Your task to perform on an android device: toggle airplane mode Image 0: 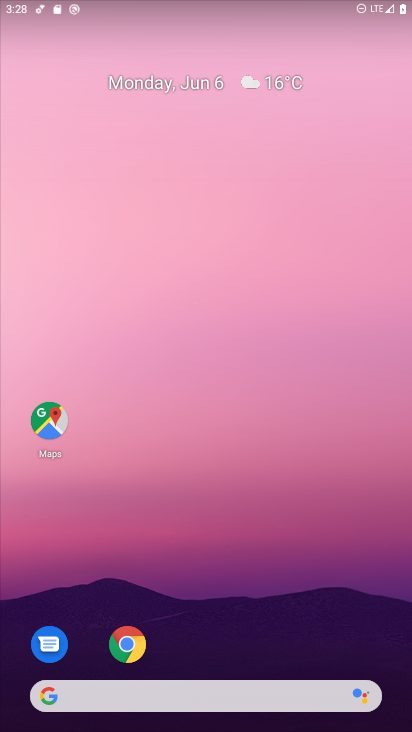
Step 0: drag from (275, 604) to (283, 36)
Your task to perform on an android device: toggle airplane mode Image 1: 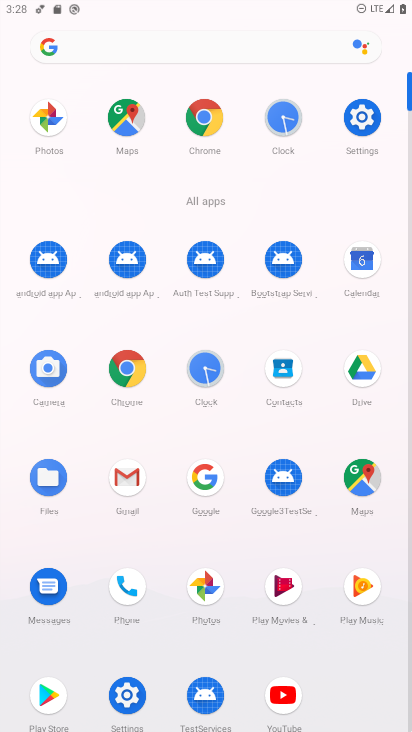
Step 1: click (358, 117)
Your task to perform on an android device: toggle airplane mode Image 2: 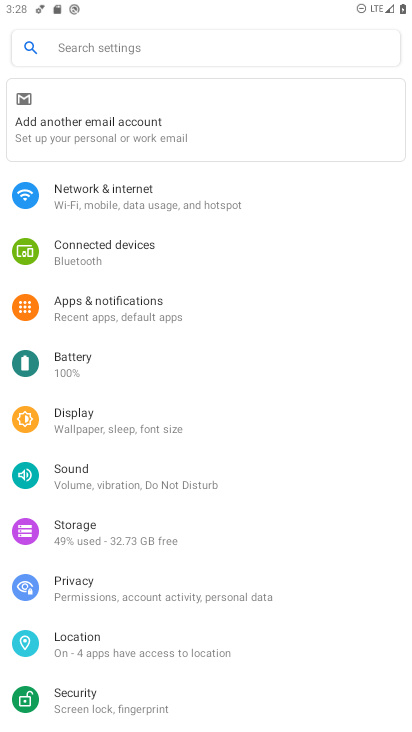
Step 2: click (118, 193)
Your task to perform on an android device: toggle airplane mode Image 3: 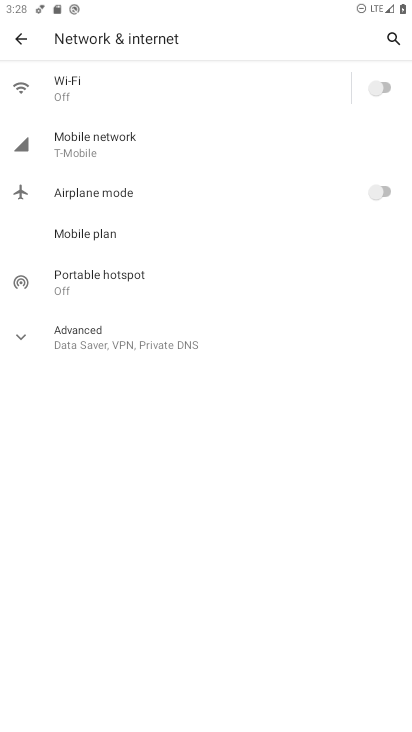
Step 3: click (384, 193)
Your task to perform on an android device: toggle airplane mode Image 4: 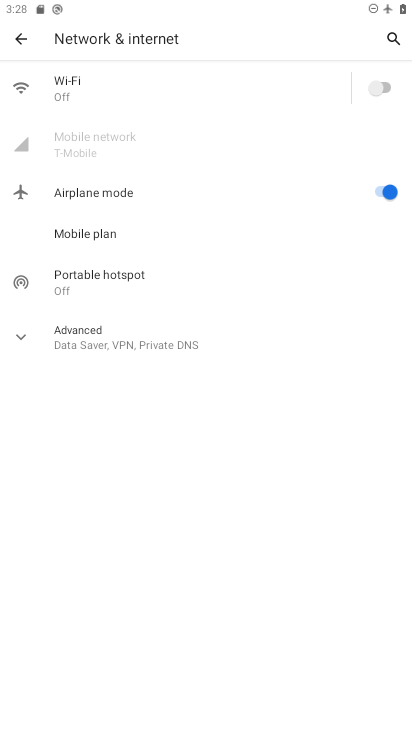
Step 4: task complete